Your task to perform on an android device: Go to Yahoo.com Image 0: 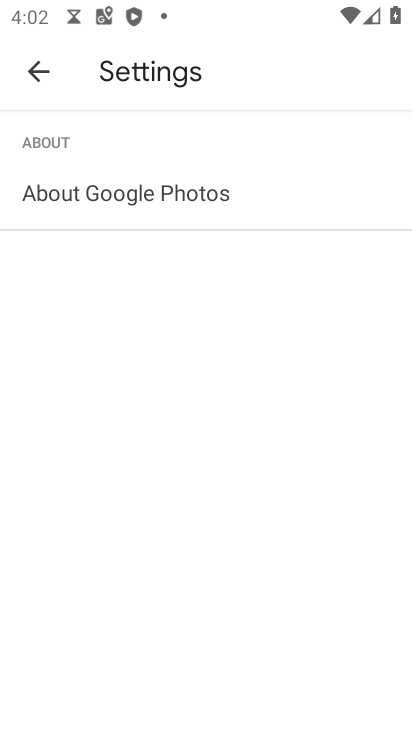
Step 0: press home button
Your task to perform on an android device: Go to Yahoo.com Image 1: 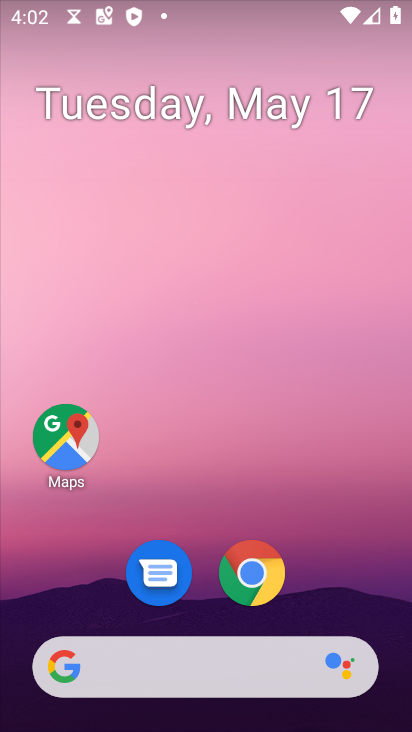
Step 1: click (258, 585)
Your task to perform on an android device: Go to Yahoo.com Image 2: 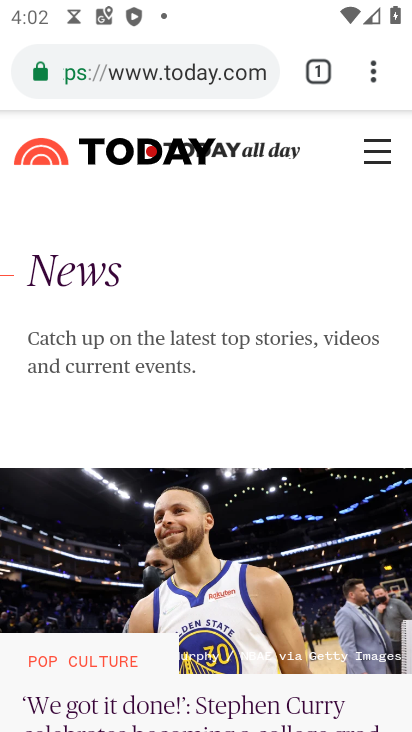
Step 2: click (161, 77)
Your task to perform on an android device: Go to Yahoo.com Image 3: 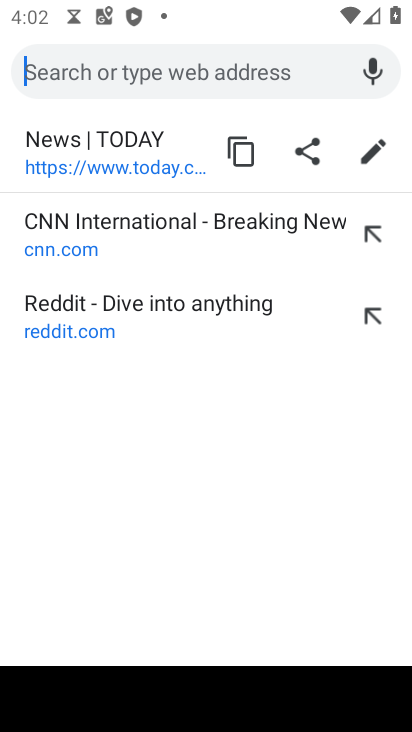
Step 3: type "Yahoo.com"
Your task to perform on an android device: Go to Yahoo.com Image 4: 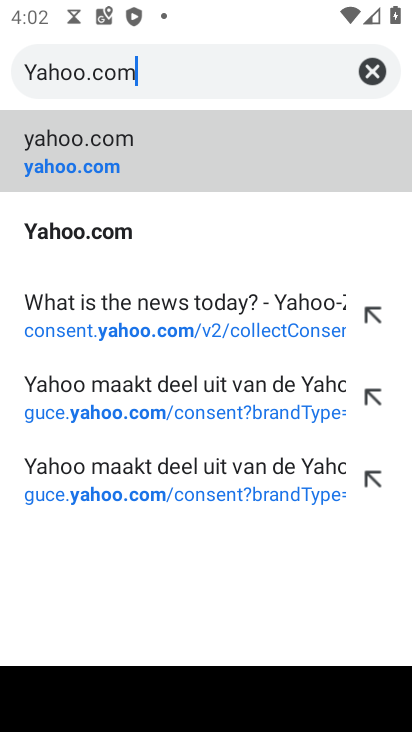
Step 4: click (93, 168)
Your task to perform on an android device: Go to Yahoo.com Image 5: 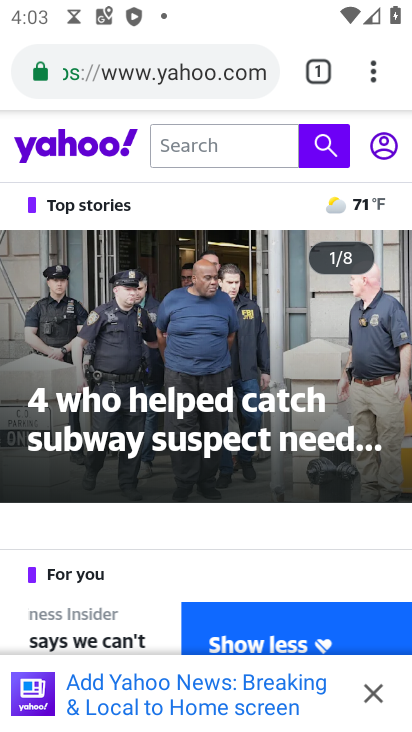
Step 5: task complete